Your task to perform on an android device: Open calendar and show me the second week of next month Image 0: 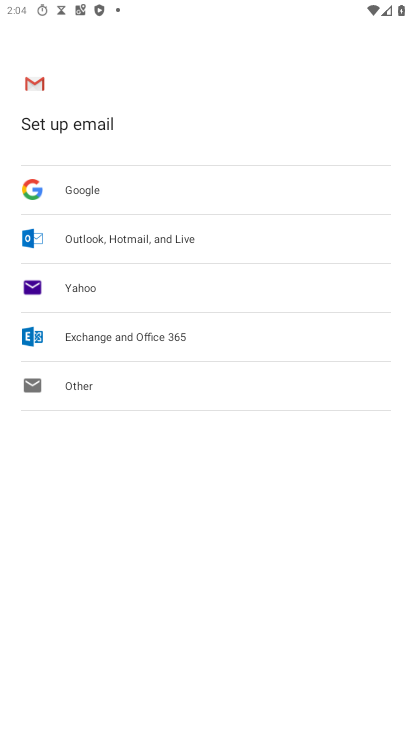
Step 0: press home button
Your task to perform on an android device: Open calendar and show me the second week of next month Image 1: 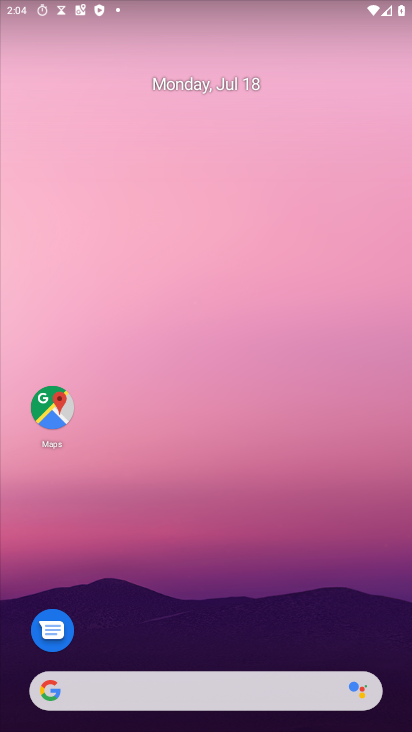
Step 1: drag from (175, 624) to (211, 2)
Your task to perform on an android device: Open calendar and show me the second week of next month Image 2: 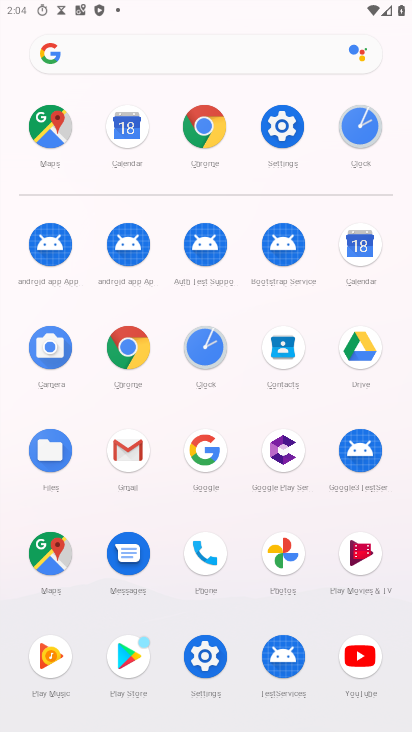
Step 2: click (356, 257)
Your task to perform on an android device: Open calendar and show me the second week of next month Image 3: 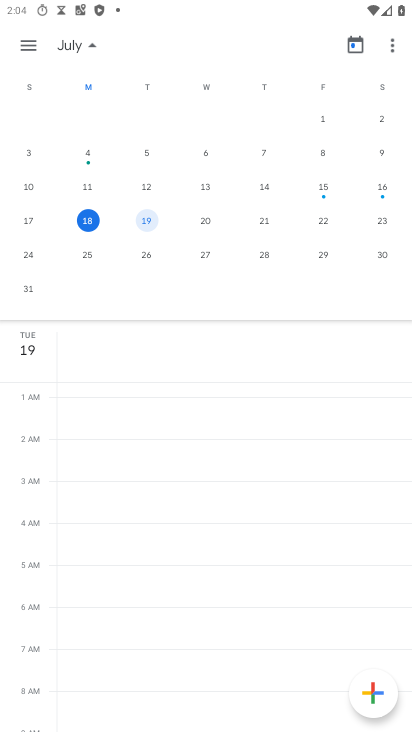
Step 3: drag from (325, 210) to (5, 170)
Your task to perform on an android device: Open calendar and show me the second week of next month Image 4: 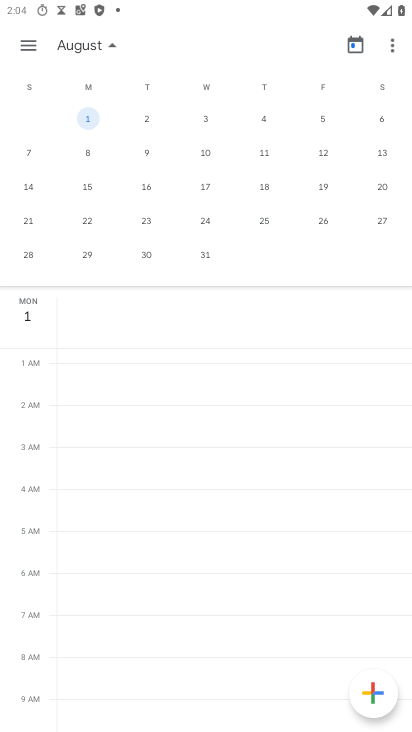
Step 4: click (208, 158)
Your task to perform on an android device: Open calendar and show me the second week of next month Image 5: 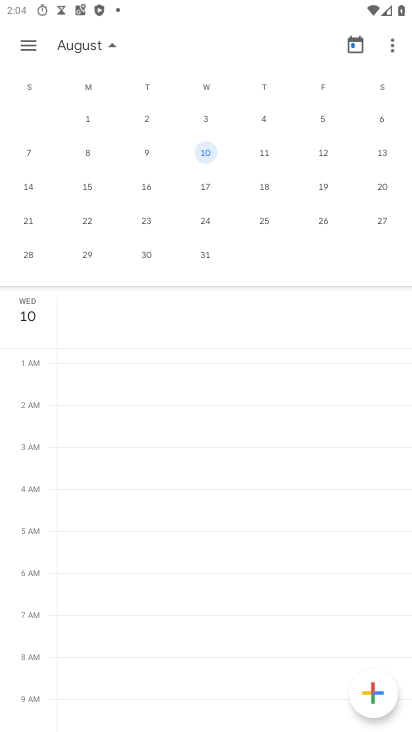
Step 5: click (33, 37)
Your task to perform on an android device: Open calendar and show me the second week of next month Image 6: 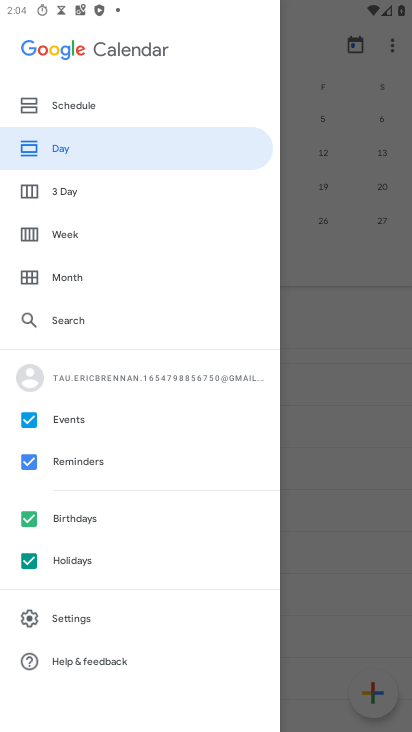
Step 6: click (71, 242)
Your task to perform on an android device: Open calendar and show me the second week of next month Image 7: 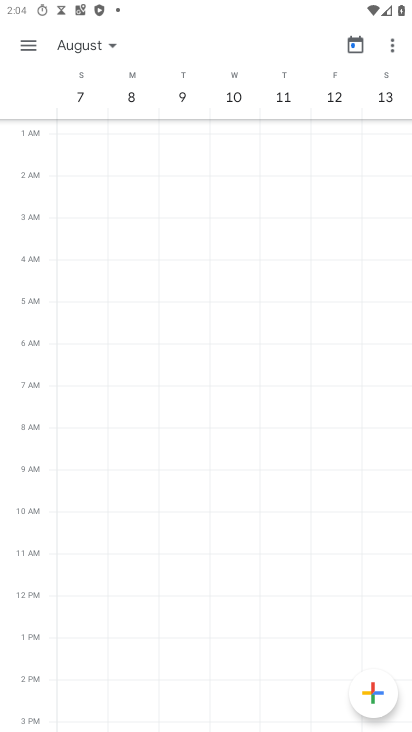
Step 7: task complete